Your task to perform on an android device: Is it going to rain today? Image 0: 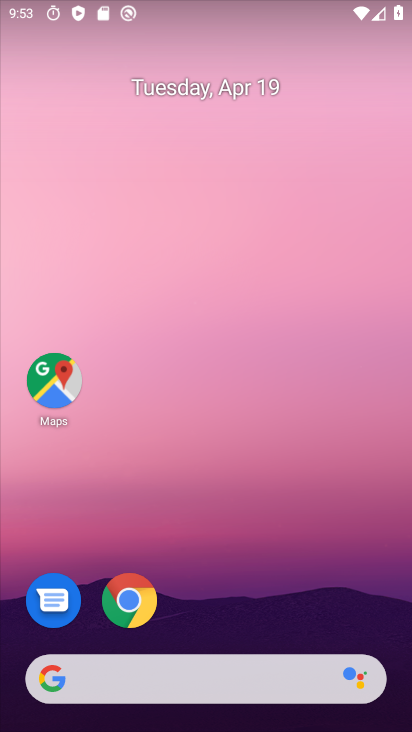
Step 0: click (146, 599)
Your task to perform on an android device: Is it going to rain today? Image 1: 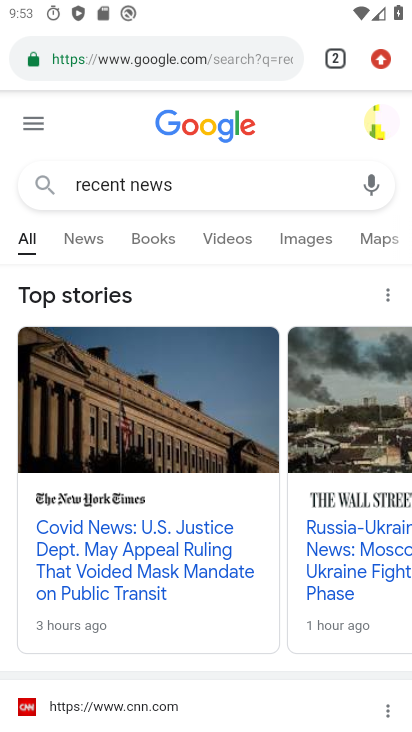
Step 1: click (205, 185)
Your task to perform on an android device: Is it going to rain today? Image 2: 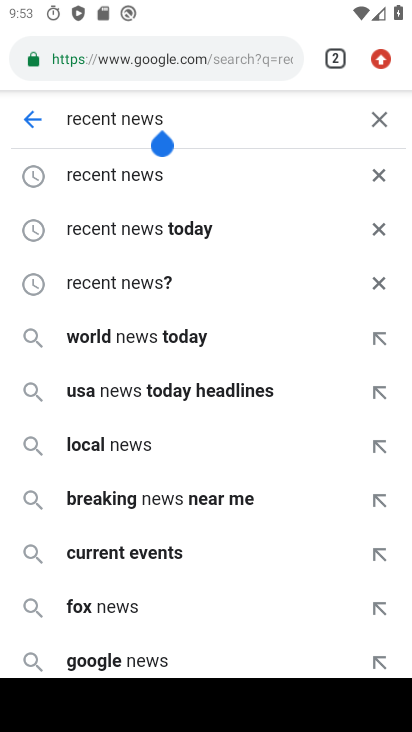
Step 2: click (384, 115)
Your task to perform on an android device: Is it going to rain today? Image 3: 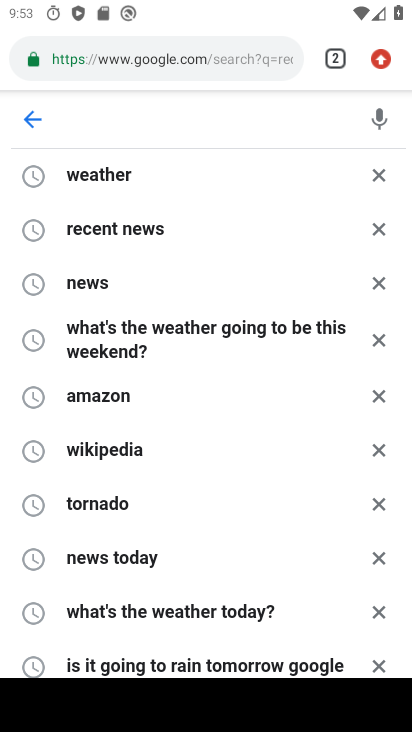
Step 3: type "Is it going to rain today?"
Your task to perform on an android device: Is it going to rain today? Image 4: 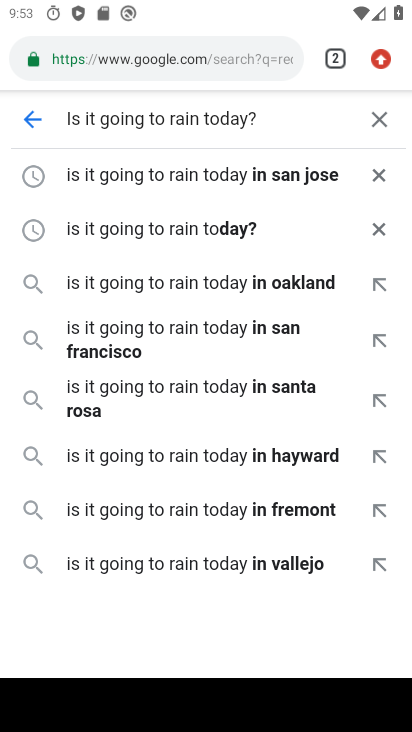
Step 4: task complete